Your task to perform on an android device: change the clock display to analog Image 0: 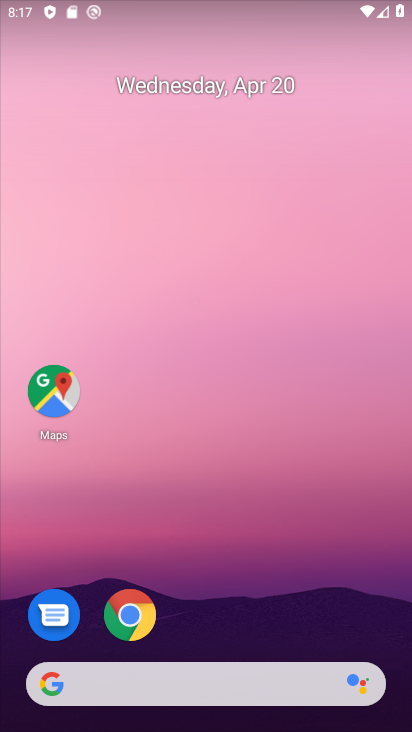
Step 0: drag from (280, 660) to (236, 104)
Your task to perform on an android device: change the clock display to analog Image 1: 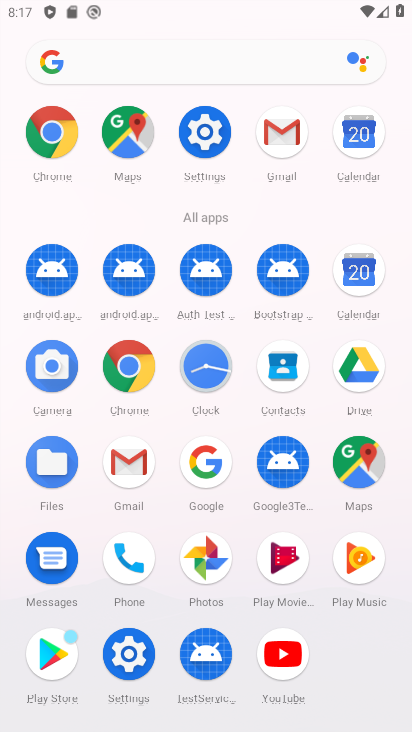
Step 1: click (196, 378)
Your task to perform on an android device: change the clock display to analog Image 2: 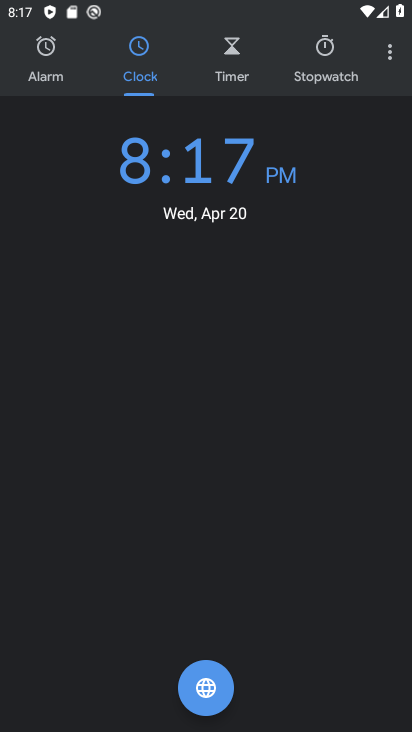
Step 2: click (390, 60)
Your task to perform on an android device: change the clock display to analog Image 3: 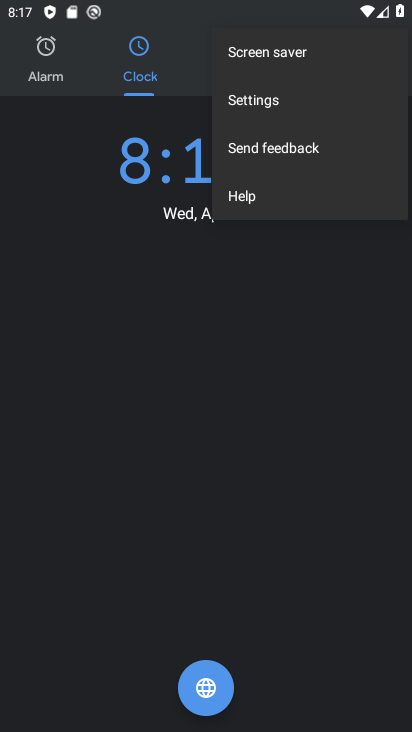
Step 3: click (307, 108)
Your task to perform on an android device: change the clock display to analog Image 4: 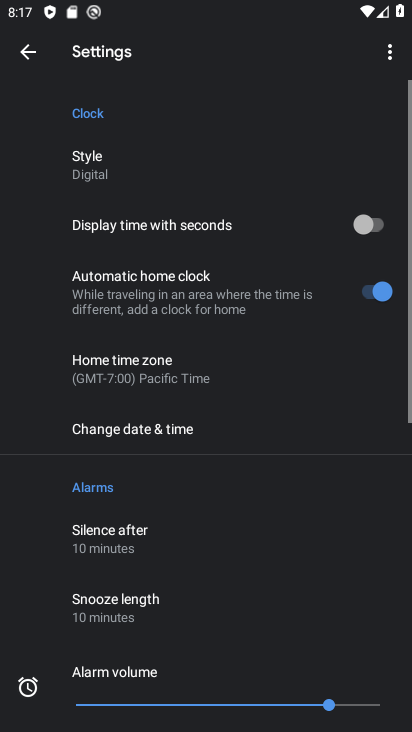
Step 4: click (212, 162)
Your task to perform on an android device: change the clock display to analog Image 5: 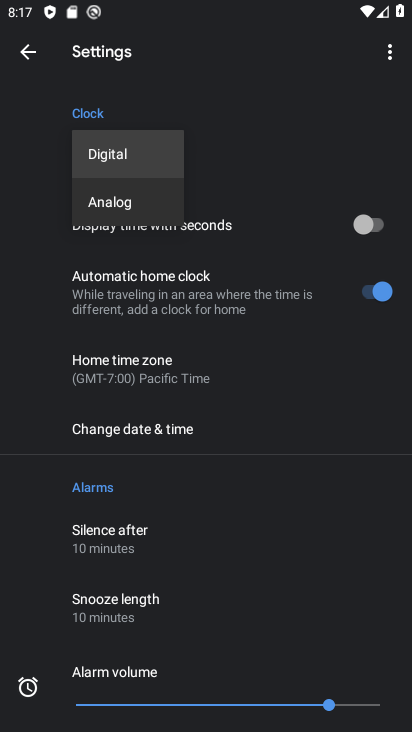
Step 5: click (151, 207)
Your task to perform on an android device: change the clock display to analog Image 6: 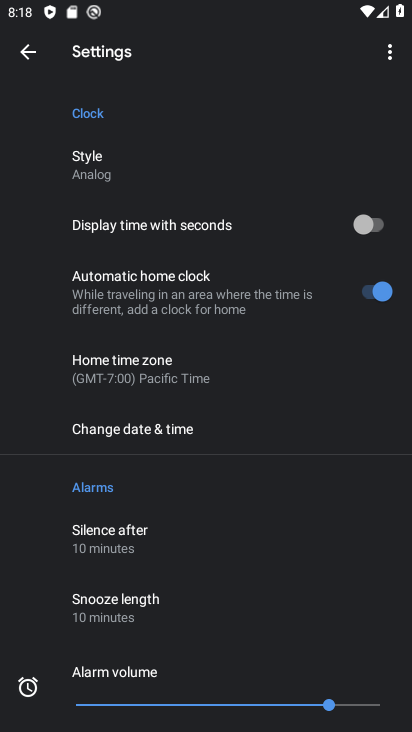
Step 6: task complete